Your task to perform on an android device: Open my contact list Image 0: 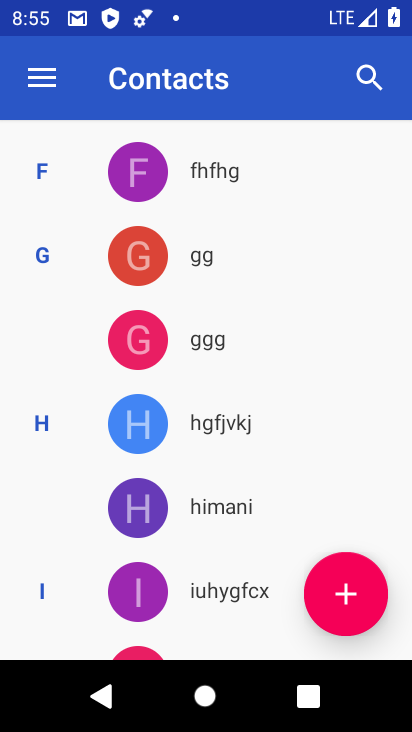
Step 0: press back button
Your task to perform on an android device: Open my contact list Image 1: 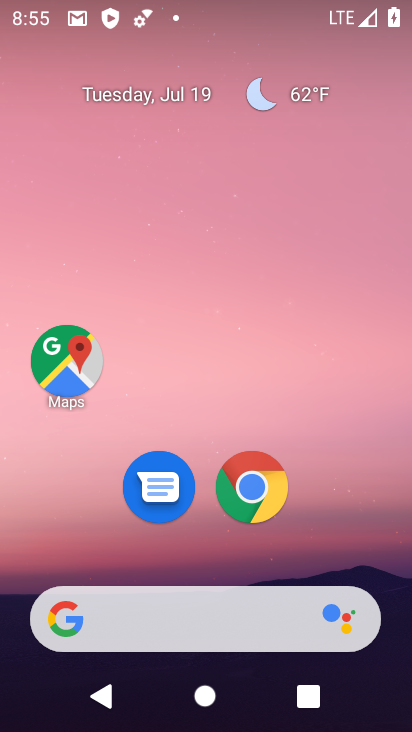
Step 1: drag from (194, 574) to (250, 8)
Your task to perform on an android device: Open my contact list Image 2: 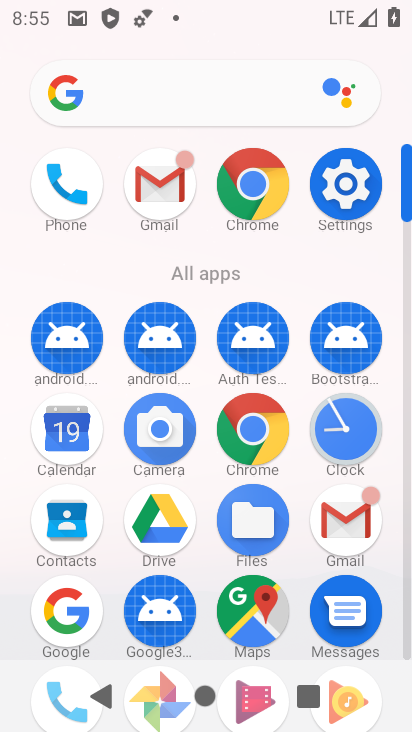
Step 2: click (68, 528)
Your task to perform on an android device: Open my contact list Image 3: 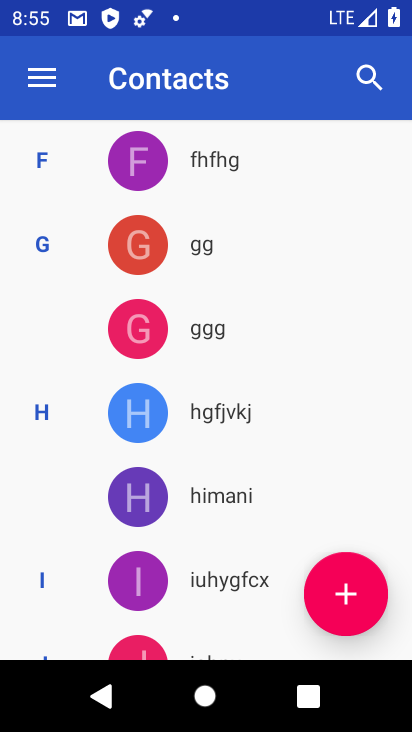
Step 3: task complete